Your task to perform on an android device: What's the price of the Galaxy phone? Image 0: 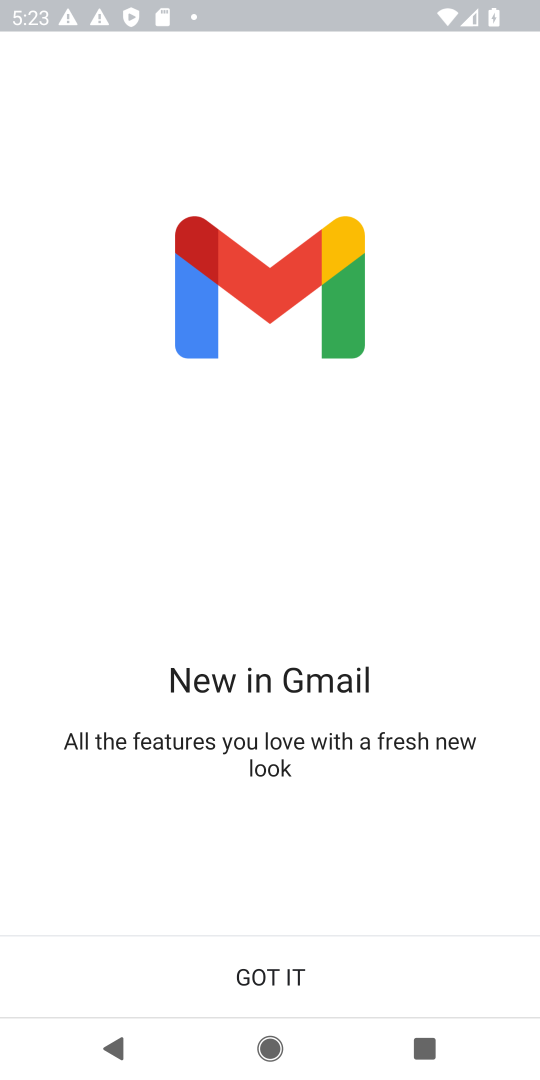
Step 0: press home button
Your task to perform on an android device: What's the price of the Galaxy phone? Image 1: 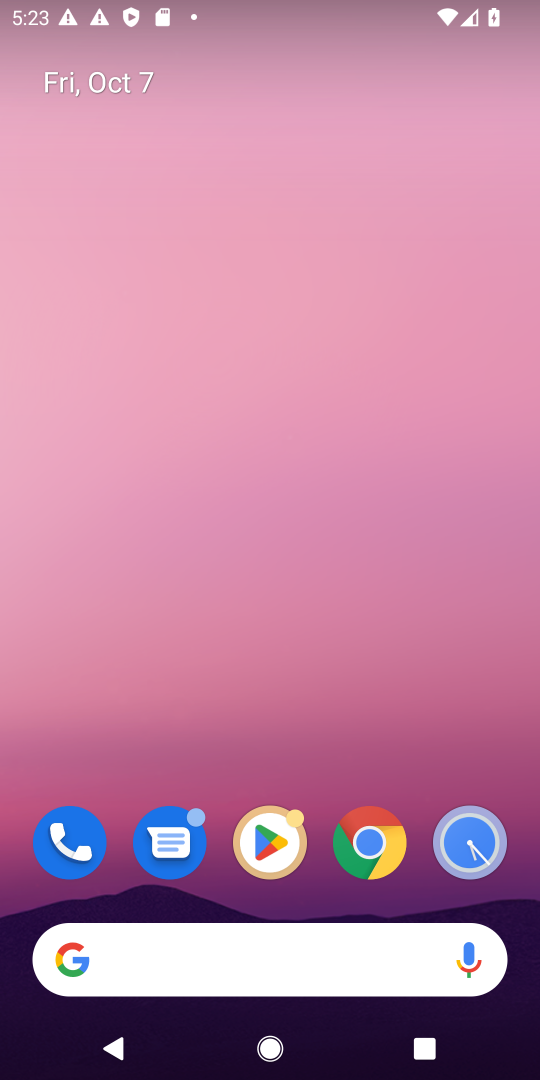
Step 1: drag from (235, 784) to (343, 123)
Your task to perform on an android device: What's the price of the Galaxy phone? Image 2: 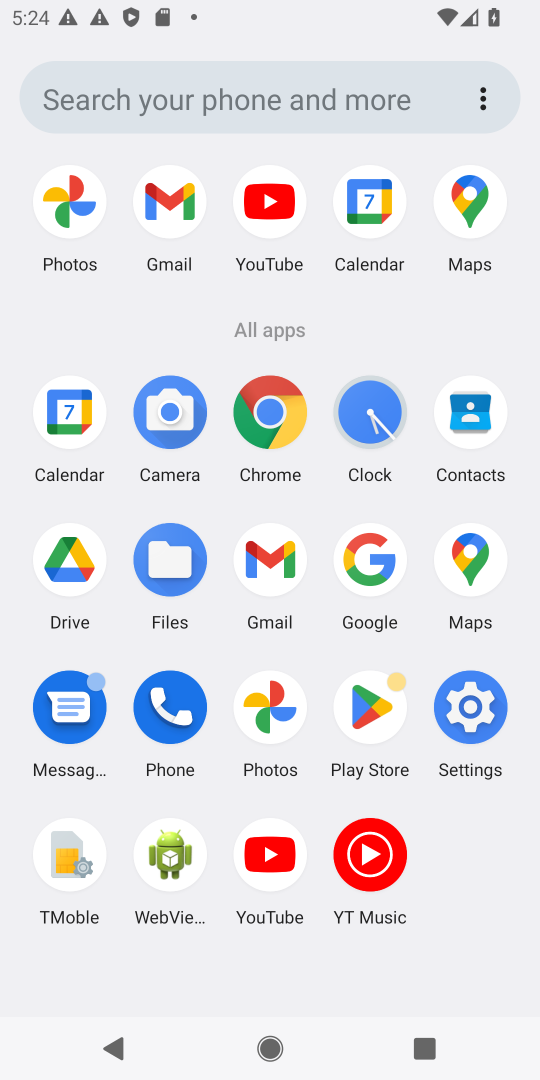
Step 2: click (365, 570)
Your task to perform on an android device: What's the price of the Galaxy phone? Image 3: 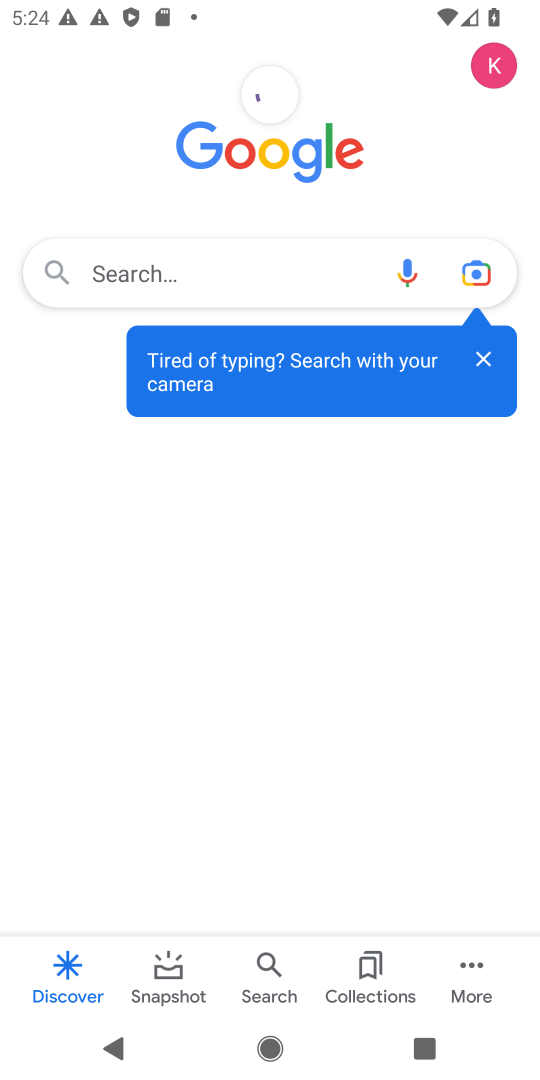
Step 3: click (179, 285)
Your task to perform on an android device: What's the price of the Galaxy phone? Image 4: 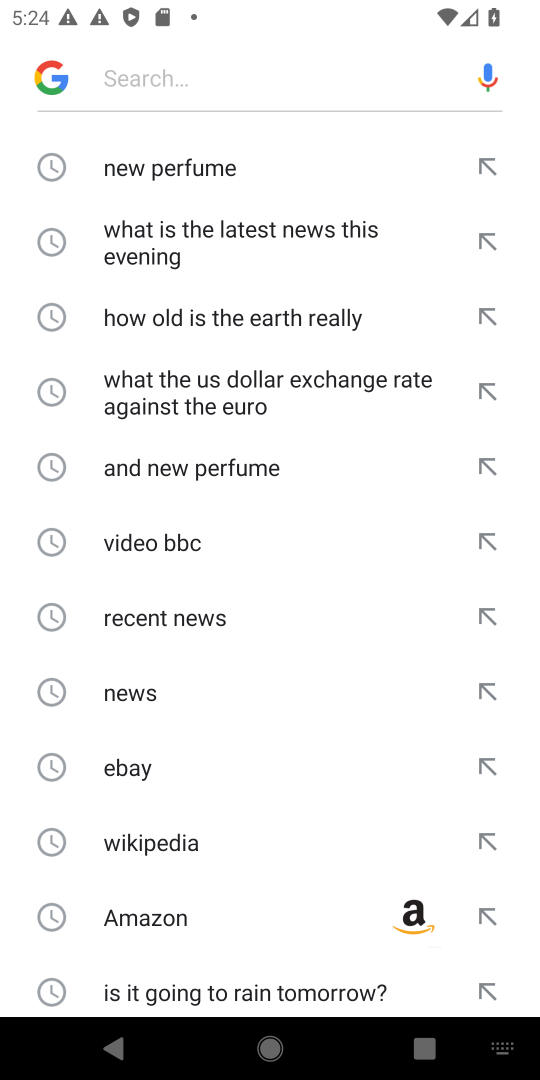
Step 4: click (228, 85)
Your task to perform on an android device: What's the price of the Galaxy phone? Image 5: 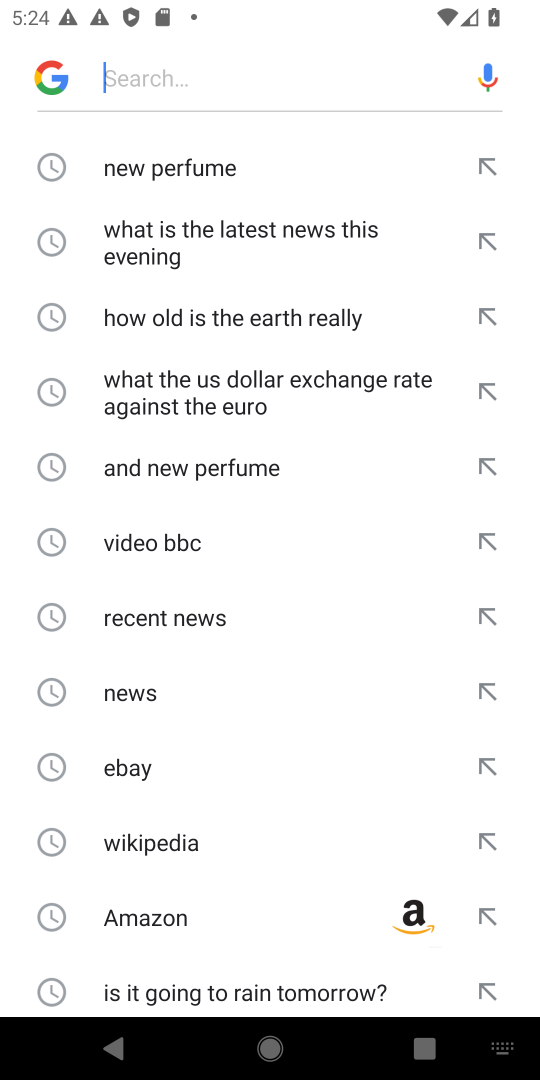
Step 5: type "What's the price of the Galaxy phone"
Your task to perform on an android device: What's the price of the Galaxy phone? Image 6: 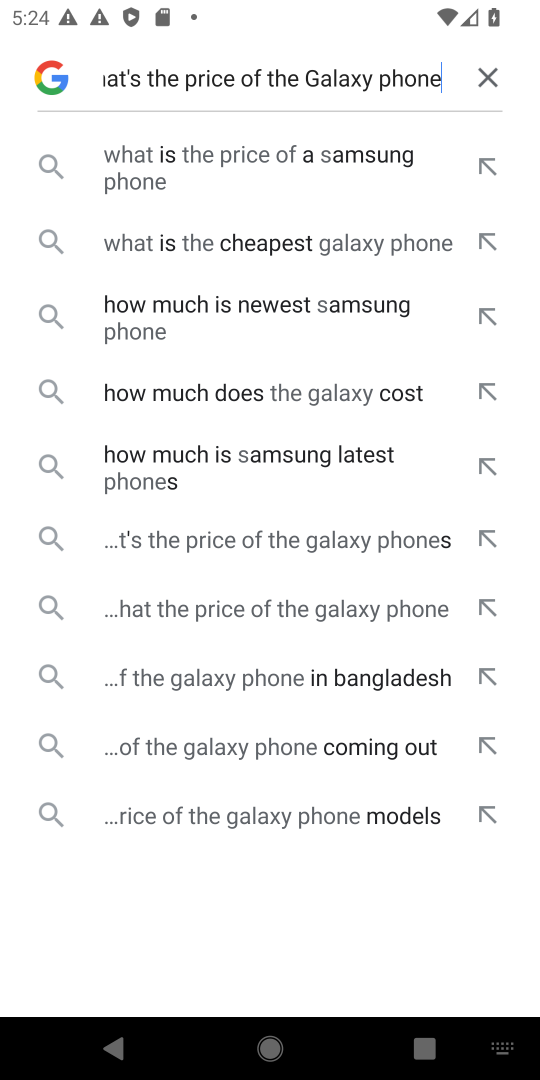
Step 6: click (296, 536)
Your task to perform on an android device: What's the price of the Galaxy phone? Image 7: 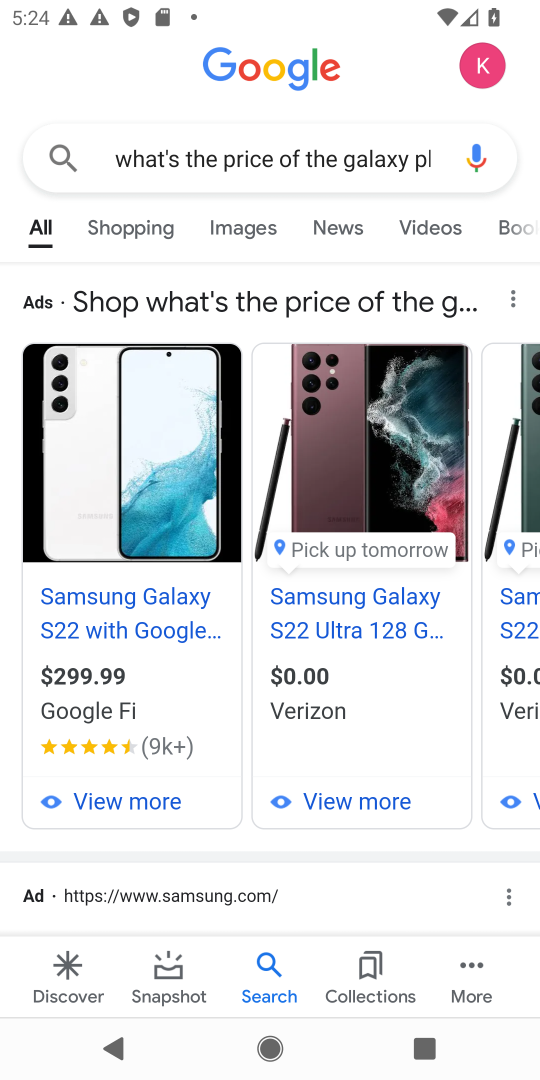
Step 7: task complete